Your task to perform on an android device: Go to notification settings Image 0: 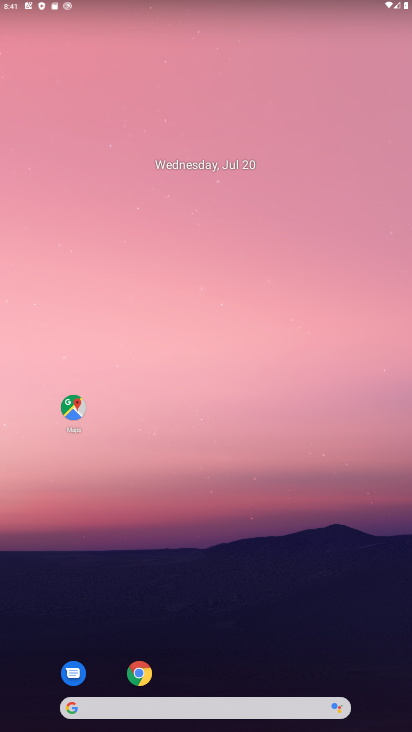
Step 0: click (223, 242)
Your task to perform on an android device: Go to notification settings Image 1: 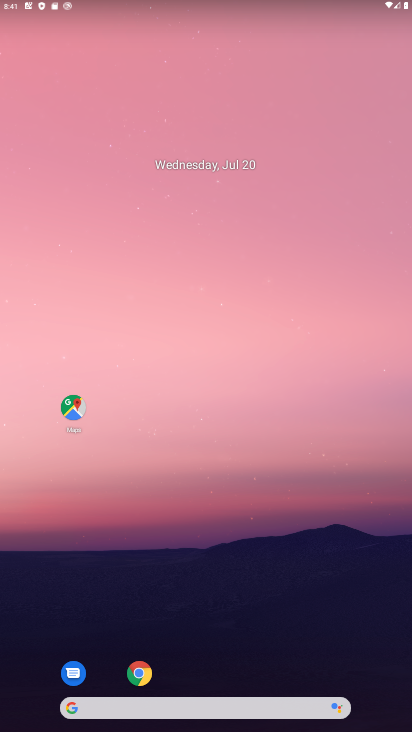
Step 1: drag from (184, 621) to (206, 27)
Your task to perform on an android device: Go to notification settings Image 2: 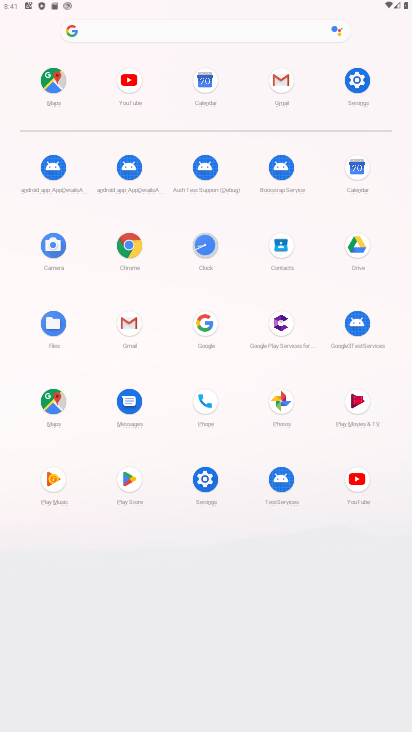
Step 2: drag from (208, 662) to (226, 343)
Your task to perform on an android device: Go to notification settings Image 3: 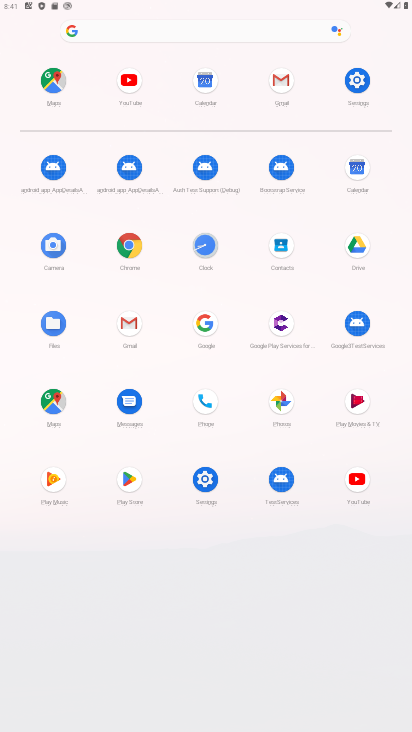
Step 3: click (202, 479)
Your task to perform on an android device: Go to notification settings Image 4: 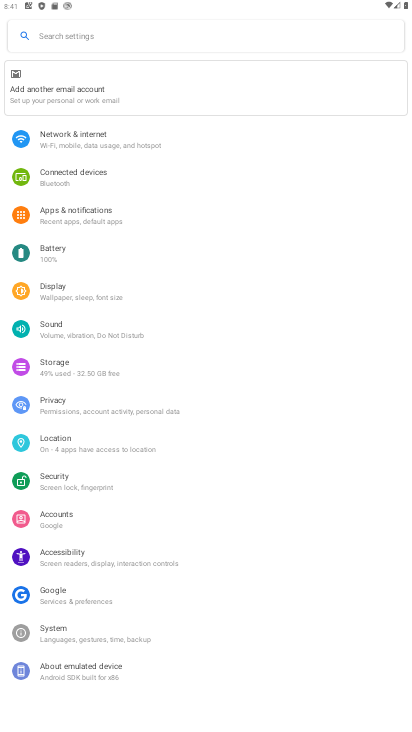
Step 4: drag from (159, 604) to (201, 67)
Your task to perform on an android device: Go to notification settings Image 5: 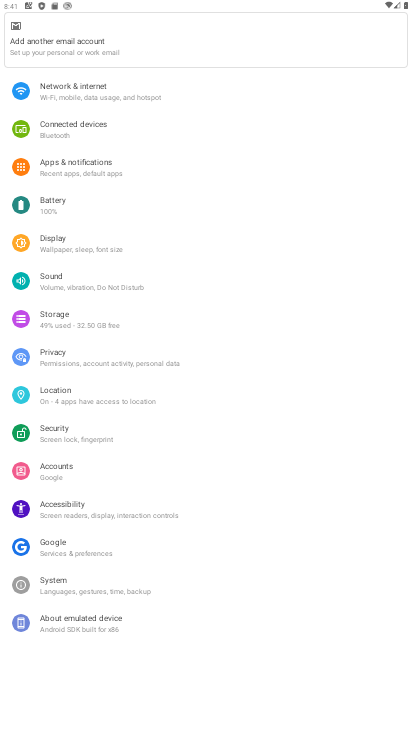
Step 5: click (91, 173)
Your task to perform on an android device: Go to notification settings Image 6: 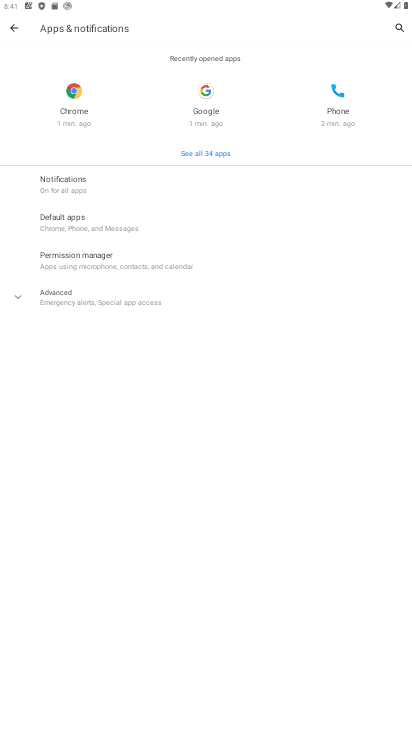
Step 6: click (118, 185)
Your task to perform on an android device: Go to notification settings Image 7: 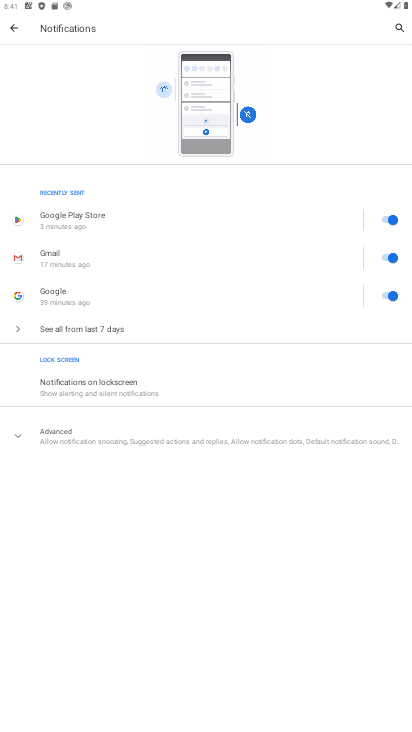
Step 7: drag from (239, 483) to (250, 298)
Your task to perform on an android device: Go to notification settings Image 8: 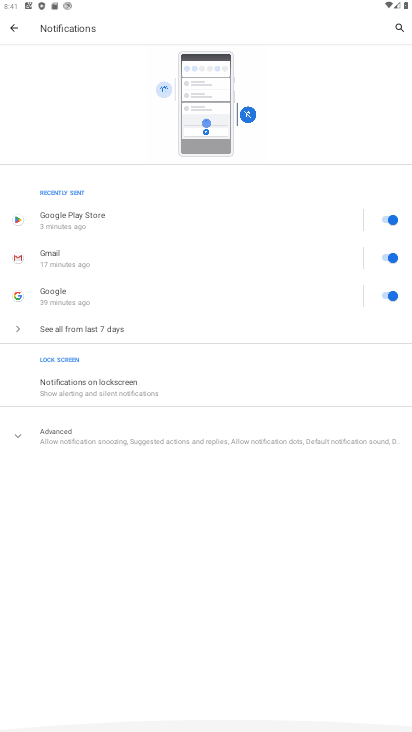
Step 8: click (91, 464)
Your task to perform on an android device: Go to notification settings Image 9: 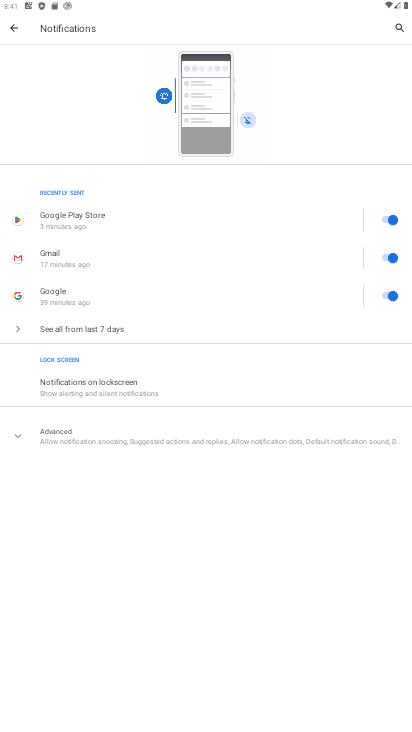
Step 9: click (96, 437)
Your task to perform on an android device: Go to notification settings Image 10: 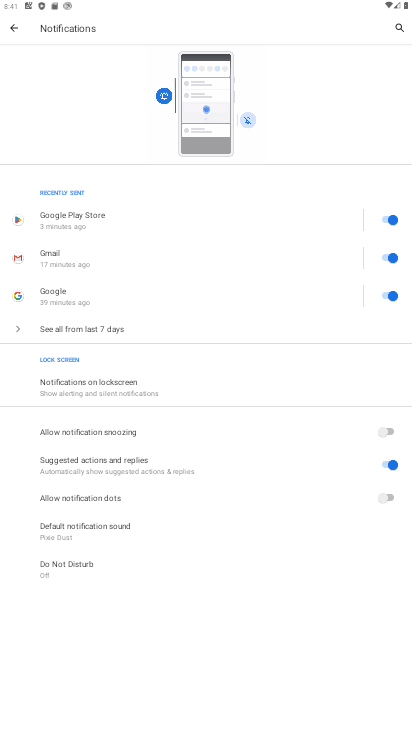
Step 10: task complete